Your task to perform on an android device: turn off location history Image 0: 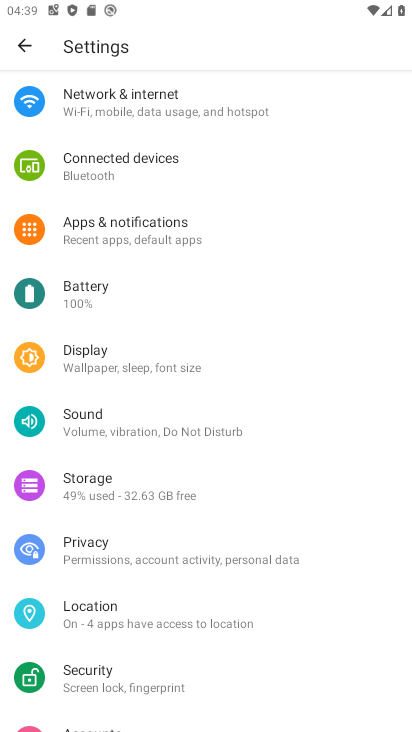
Step 0: press home button
Your task to perform on an android device: turn off location history Image 1: 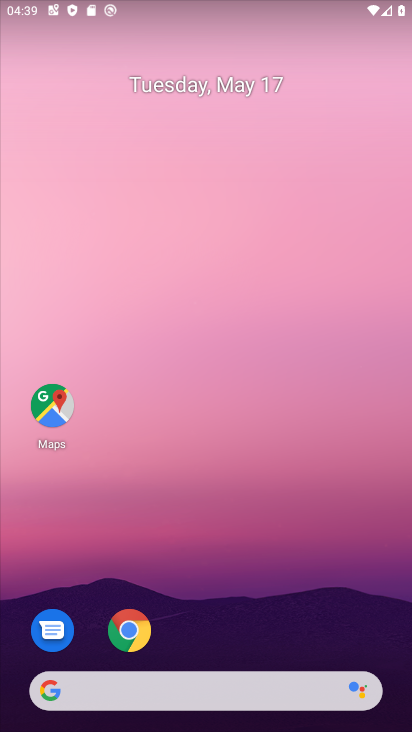
Step 1: click (38, 406)
Your task to perform on an android device: turn off location history Image 2: 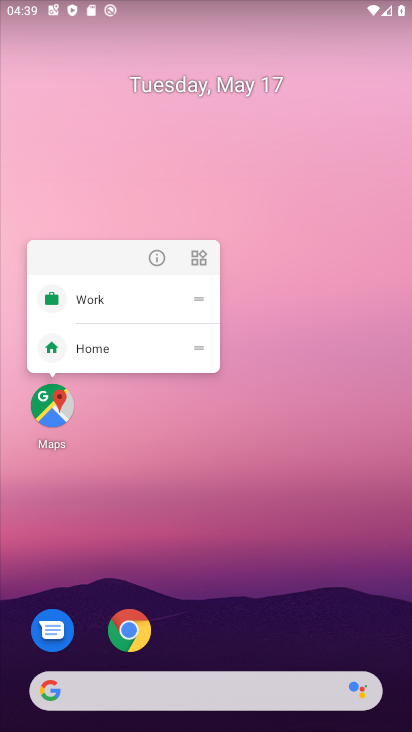
Step 2: click (46, 404)
Your task to perform on an android device: turn off location history Image 3: 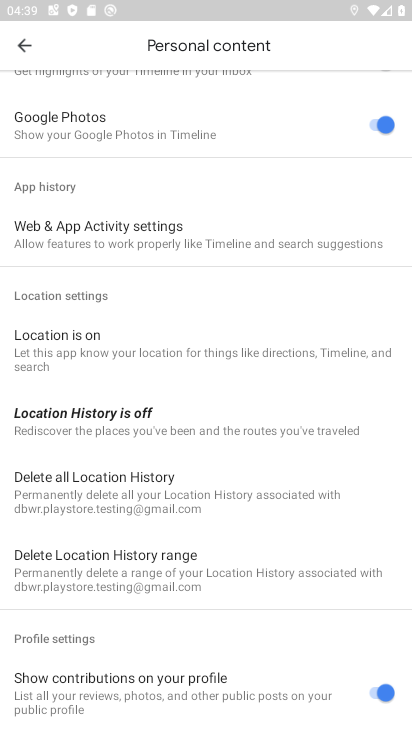
Step 3: click (137, 426)
Your task to perform on an android device: turn off location history Image 4: 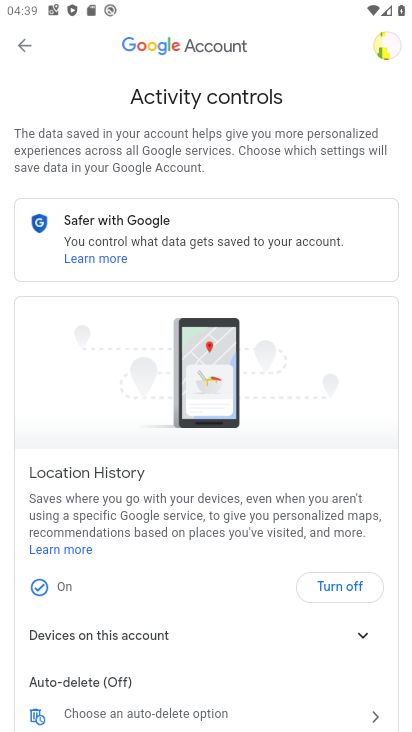
Step 4: drag from (196, 569) to (259, 212)
Your task to perform on an android device: turn off location history Image 5: 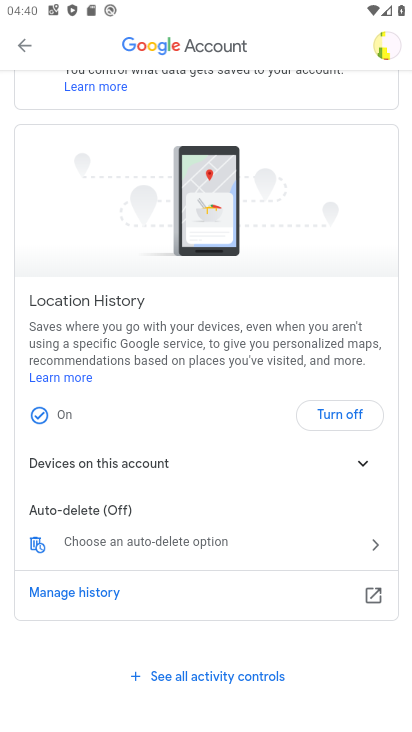
Step 5: drag from (176, 293) to (136, 182)
Your task to perform on an android device: turn off location history Image 6: 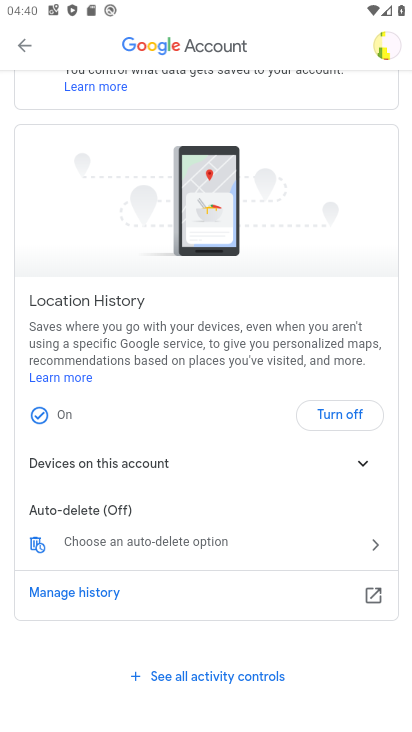
Step 6: click (332, 410)
Your task to perform on an android device: turn off location history Image 7: 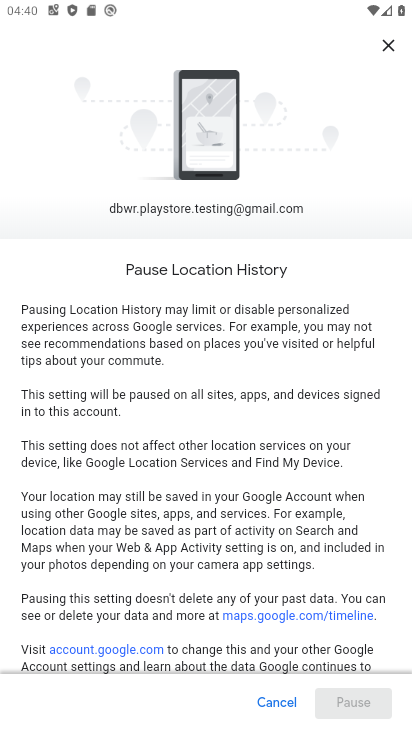
Step 7: drag from (302, 631) to (305, 140)
Your task to perform on an android device: turn off location history Image 8: 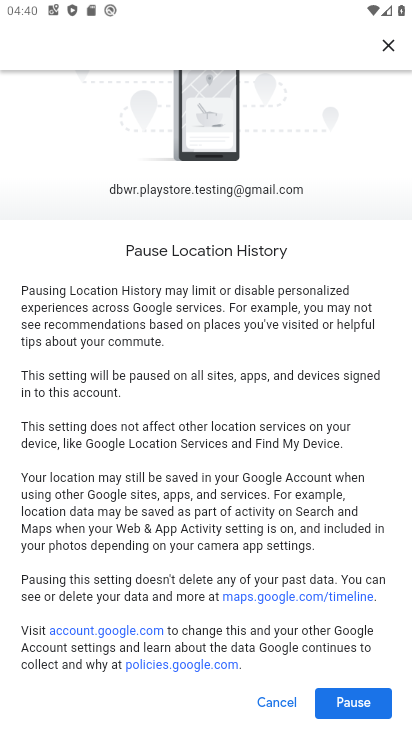
Step 8: click (333, 714)
Your task to perform on an android device: turn off location history Image 9: 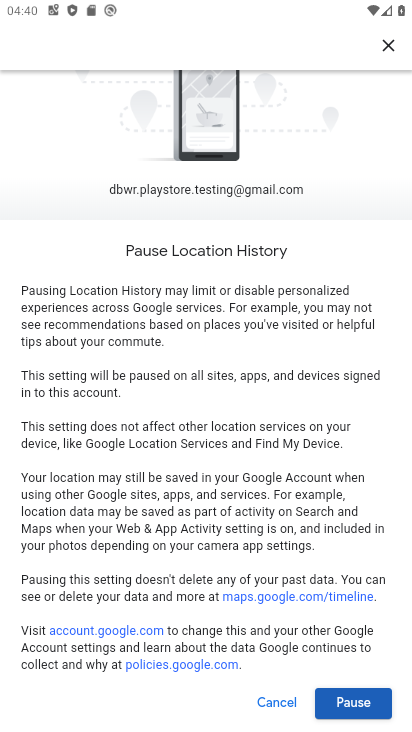
Step 9: click (355, 707)
Your task to perform on an android device: turn off location history Image 10: 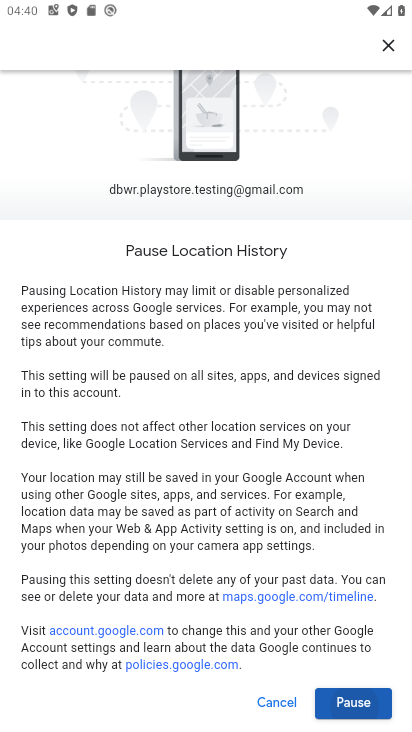
Step 10: click (355, 707)
Your task to perform on an android device: turn off location history Image 11: 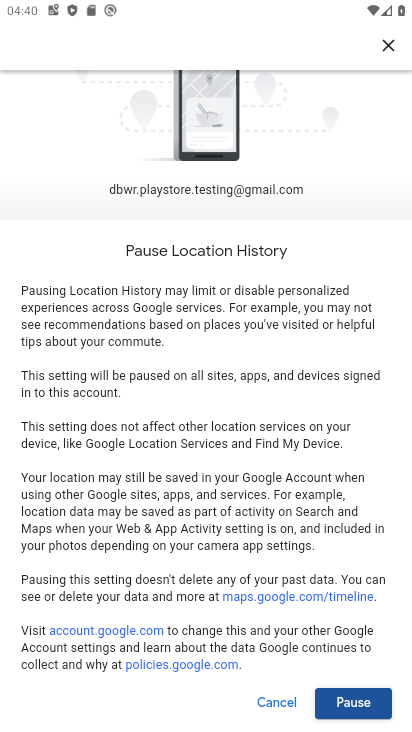
Step 11: click (355, 707)
Your task to perform on an android device: turn off location history Image 12: 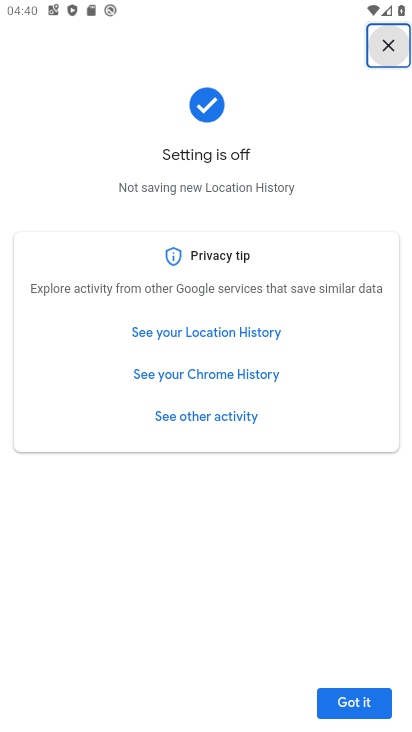
Step 12: click (346, 702)
Your task to perform on an android device: turn off location history Image 13: 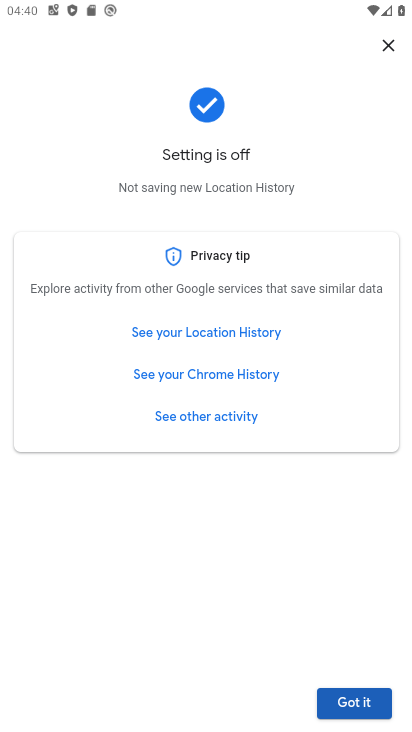
Step 13: click (342, 705)
Your task to perform on an android device: turn off location history Image 14: 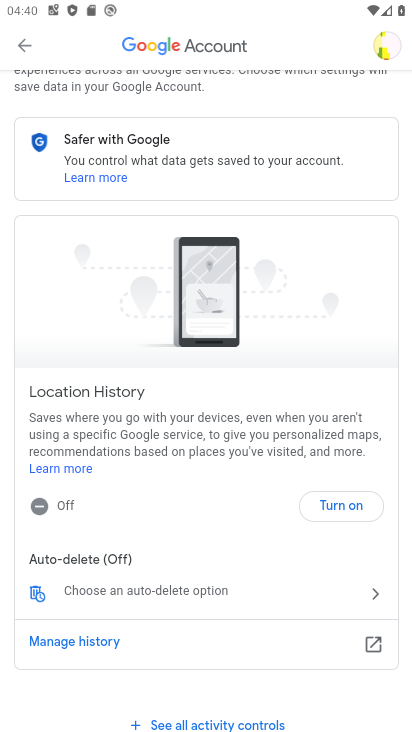
Step 14: task complete